Your task to perform on an android device: open the mobile data screen to see how much data has been used Image 0: 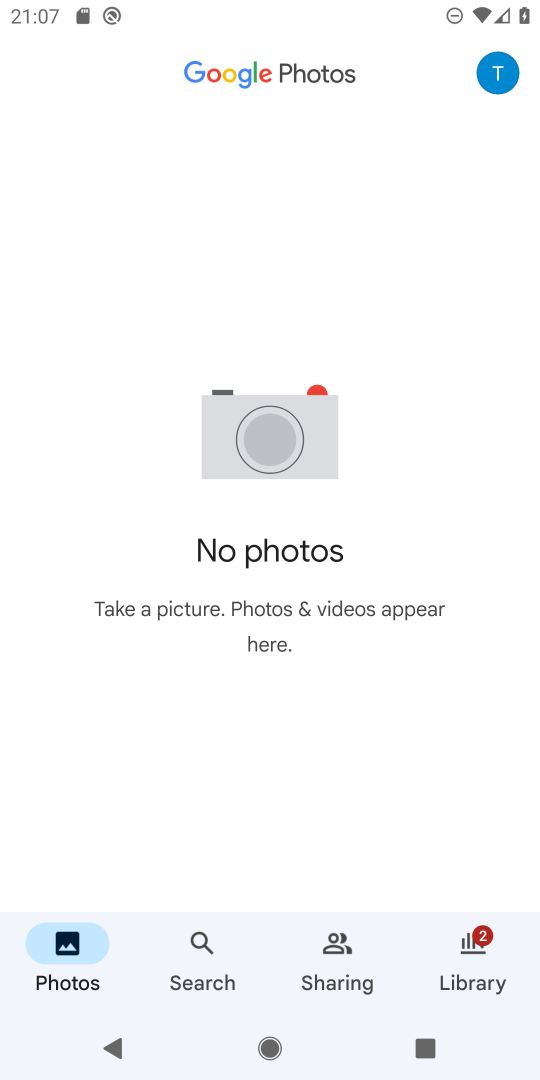
Step 0: press home button
Your task to perform on an android device: open the mobile data screen to see how much data has been used Image 1: 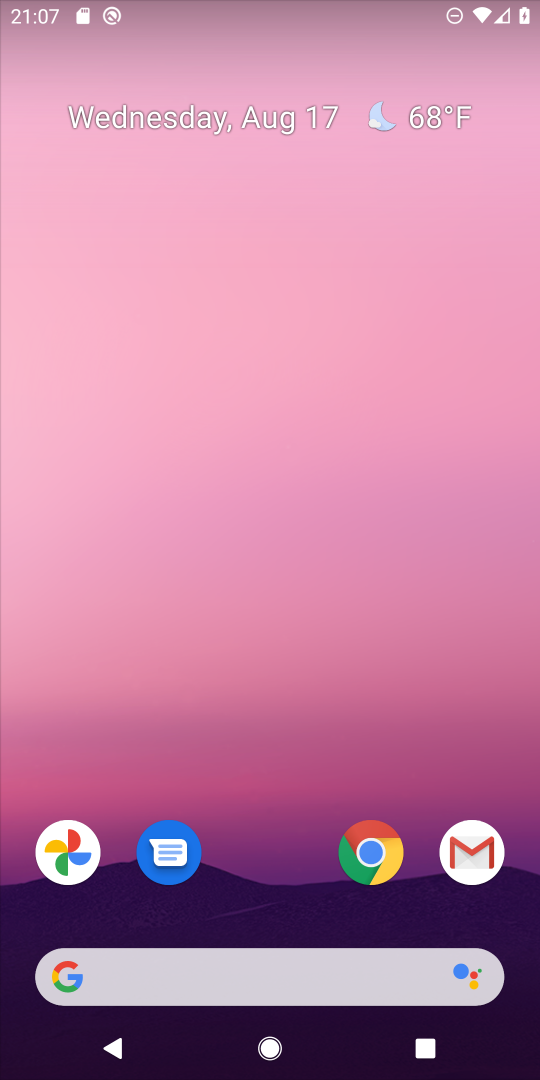
Step 1: drag from (272, 884) to (272, 389)
Your task to perform on an android device: open the mobile data screen to see how much data has been used Image 2: 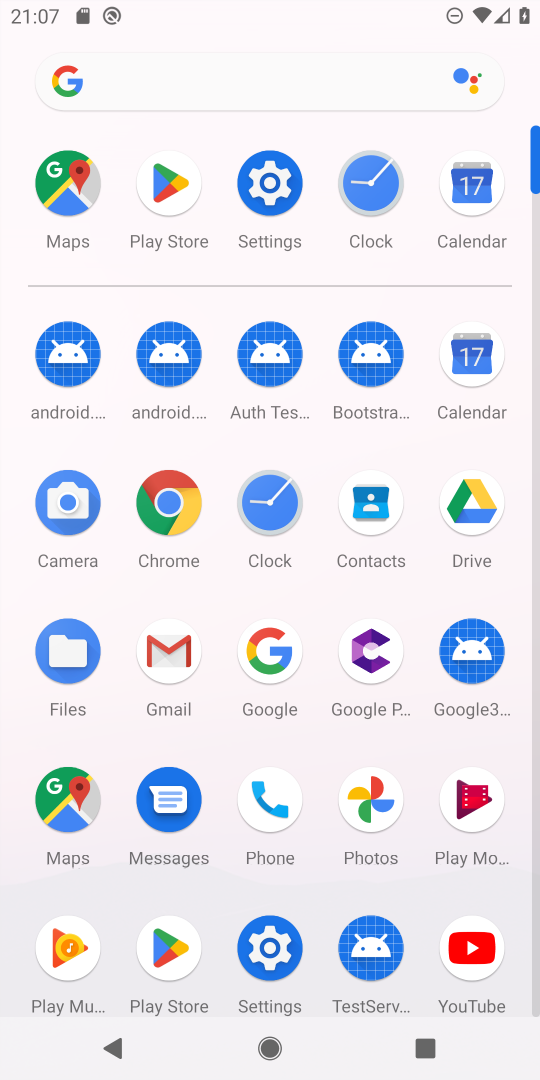
Step 2: click (270, 182)
Your task to perform on an android device: open the mobile data screen to see how much data has been used Image 3: 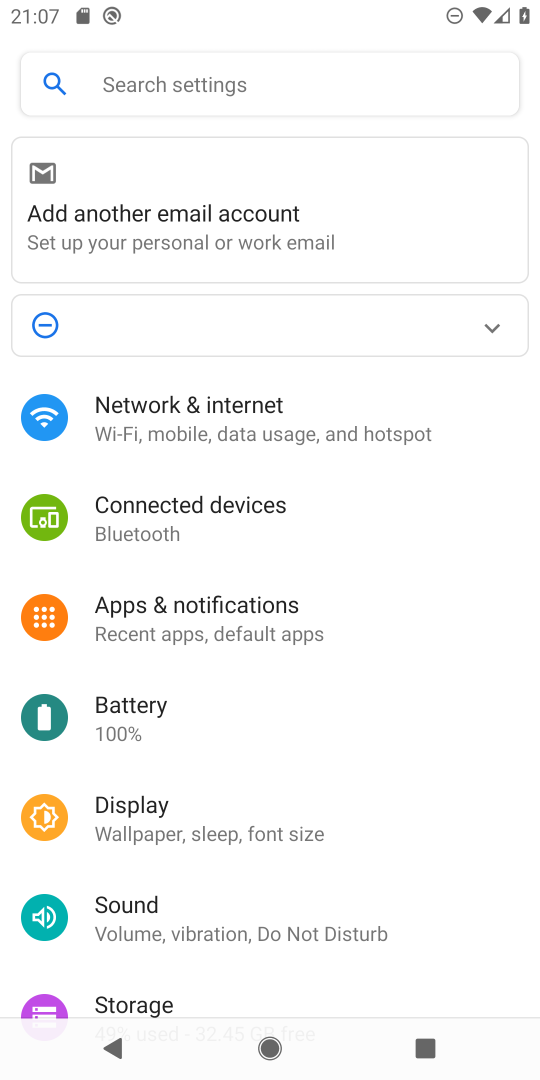
Step 3: click (214, 415)
Your task to perform on an android device: open the mobile data screen to see how much data has been used Image 4: 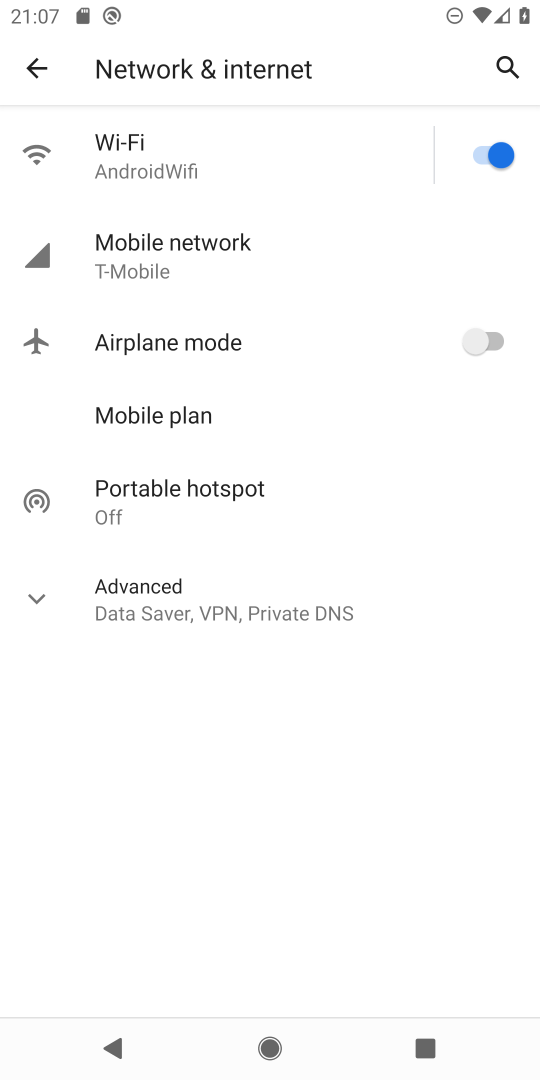
Step 4: click (159, 244)
Your task to perform on an android device: open the mobile data screen to see how much data has been used Image 5: 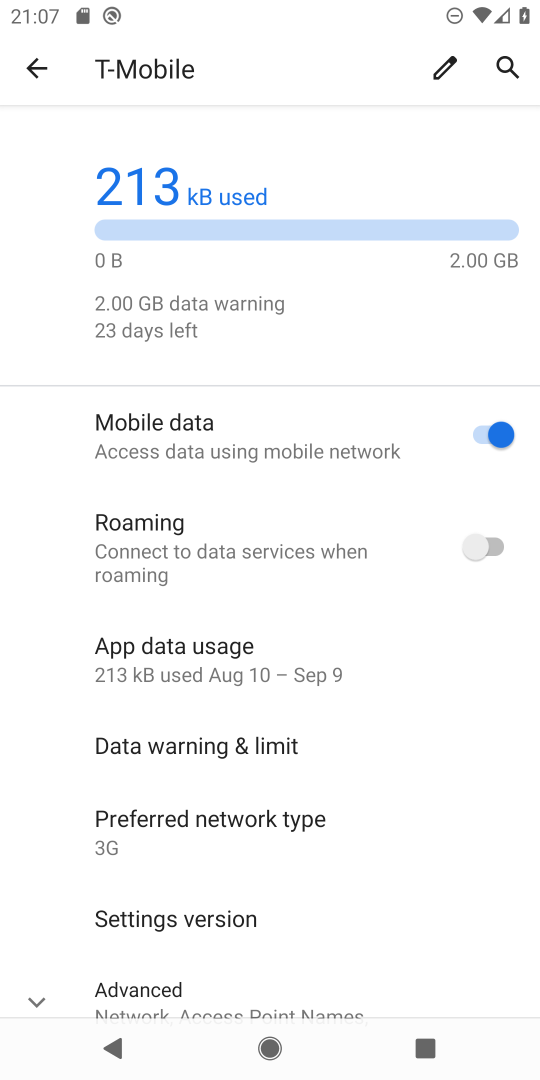
Step 5: task complete